Your task to perform on an android device: set the stopwatch Image 0: 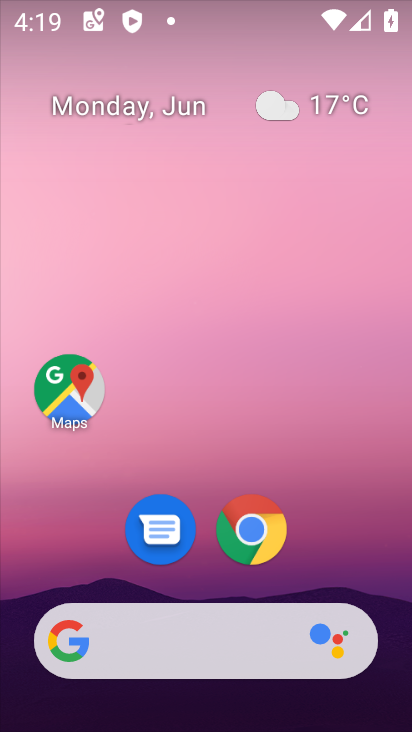
Step 0: drag from (334, 542) to (234, 44)
Your task to perform on an android device: set the stopwatch Image 1: 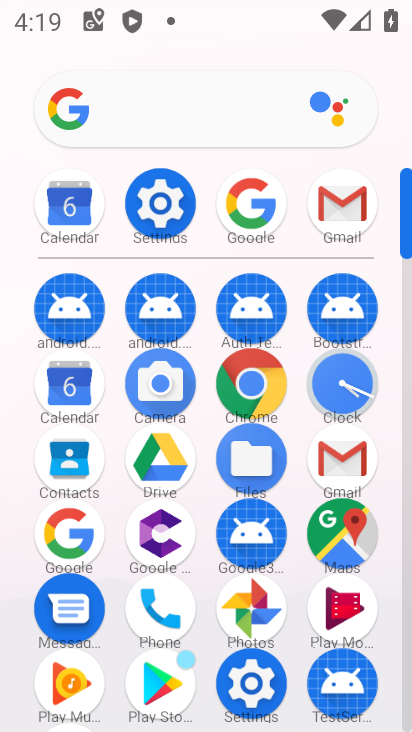
Step 1: click (340, 387)
Your task to perform on an android device: set the stopwatch Image 2: 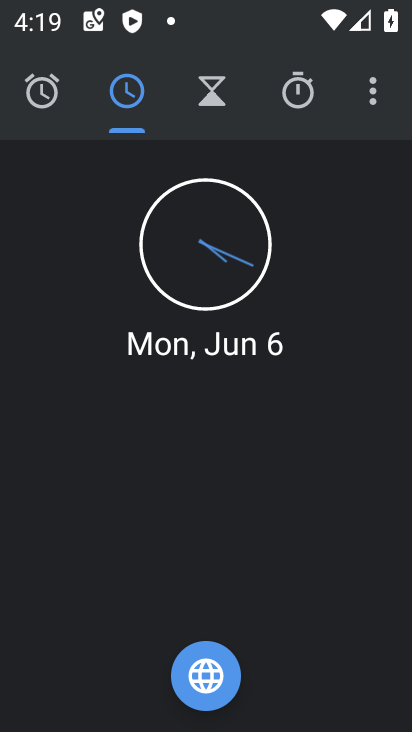
Step 2: click (301, 73)
Your task to perform on an android device: set the stopwatch Image 3: 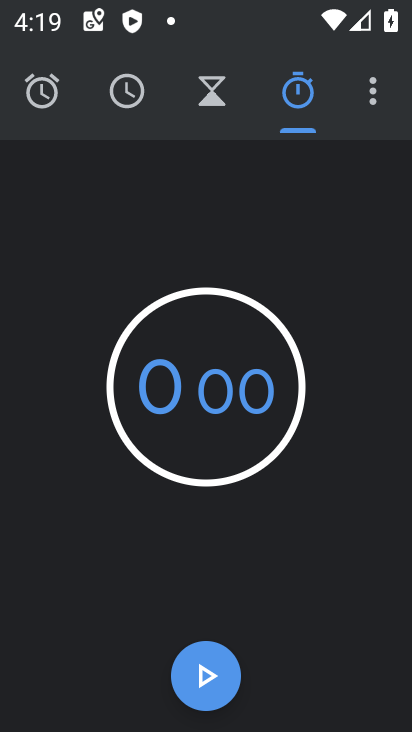
Step 3: click (202, 662)
Your task to perform on an android device: set the stopwatch Image 4: 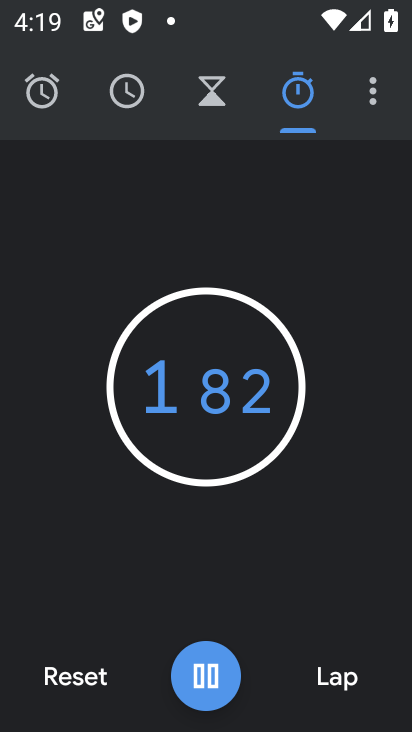
Step 4: click (202, 662)
Your task to perform on an android device: set the stopwatch Image 5: 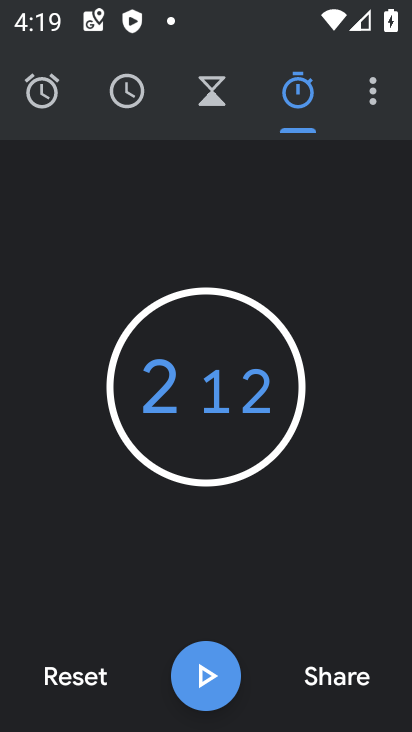
Step 5: task complete